Your task to perform on an android device: Go to internet settings Image 0: 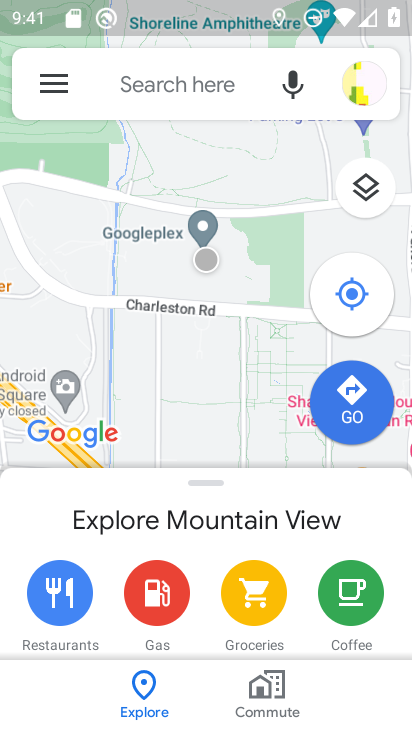
Step 0: press home button
Your task to perform on an android device: Go to internet settings Image 1: 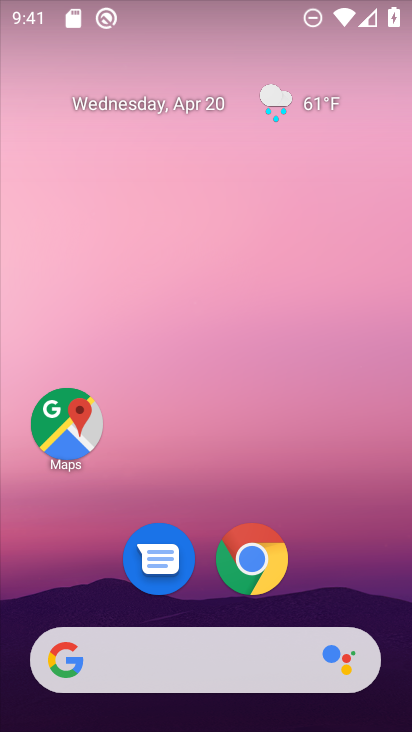
Step 1: drag from (336, 601) to (213, 9)
Your task to perform on an android device: Go to internet settings Image 2: 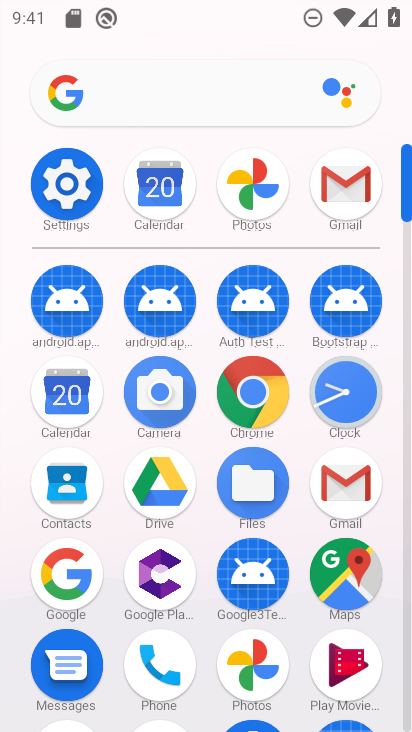
Step 2: click (407, 707)
Your task to perform on an android device: Go to internet settings Image 3: 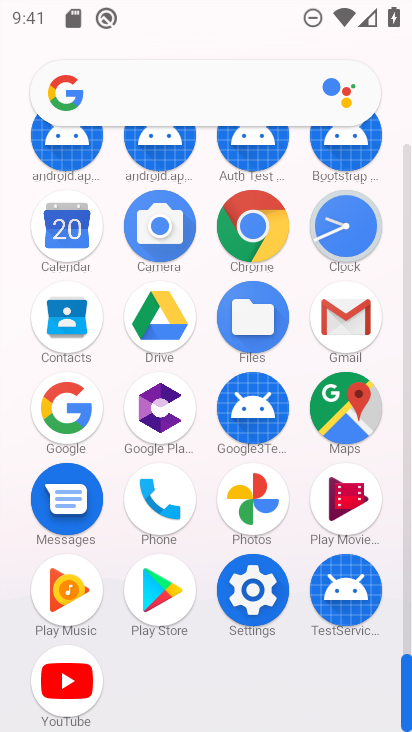
Step 3: click (250, 584)
Your task to perform on an android device: Go to internet settings Image 4: 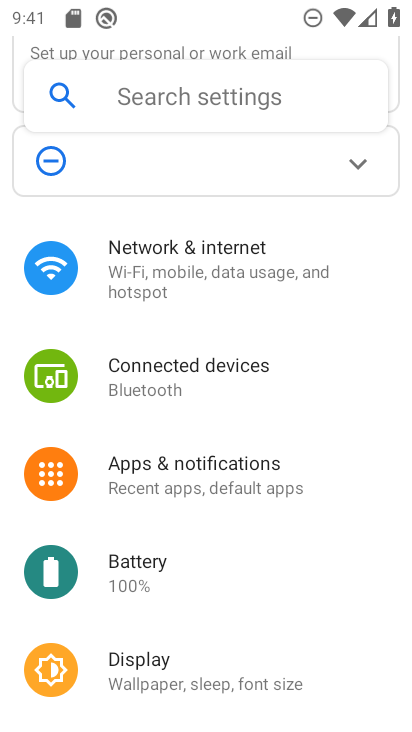
Step 4: click (155, 263)
Your task to perform on an android device: Go to internet settings Image 5: 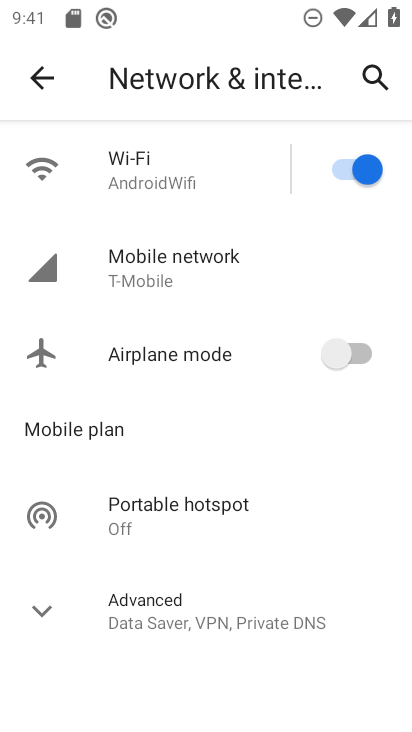
Step 5: click (139, 252)
Your task to perform on an android device: Go to internet settings Image 6: 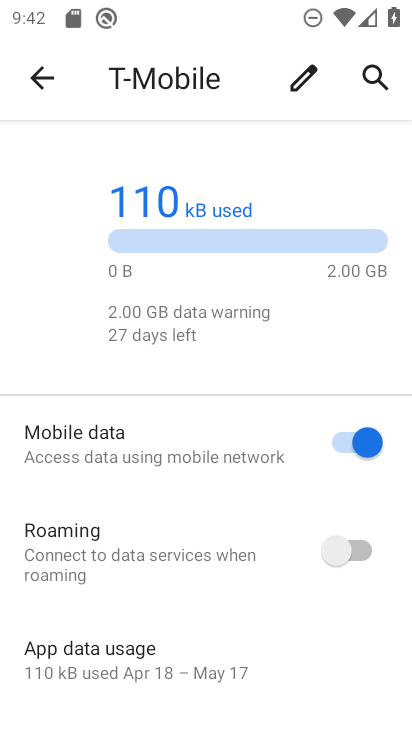
Step 6: press back button
Your task to perform on an android device: Go to internet settings Image 7: 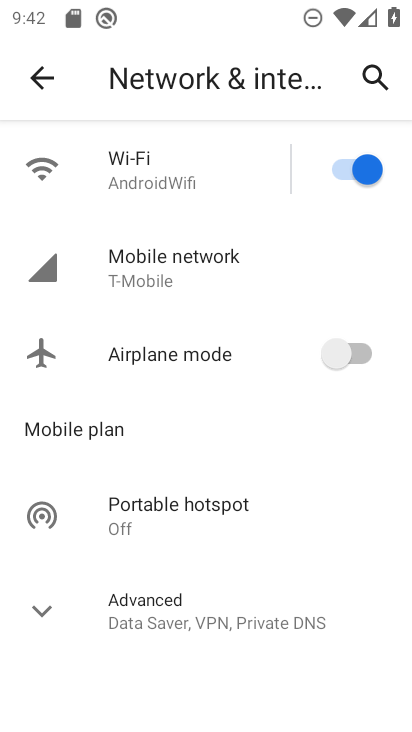
Step 7: click (111, 168)
Your task to perform on an android device: Go to internet settings Image 8: 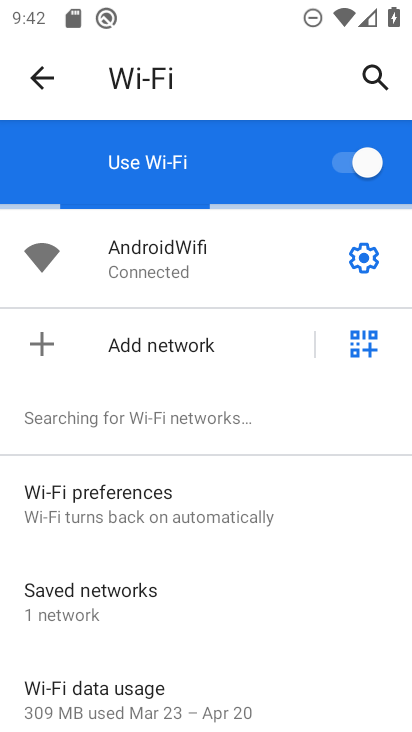
Step 8: task complete